Your task to perform on an android device: Check the weather Image 0: 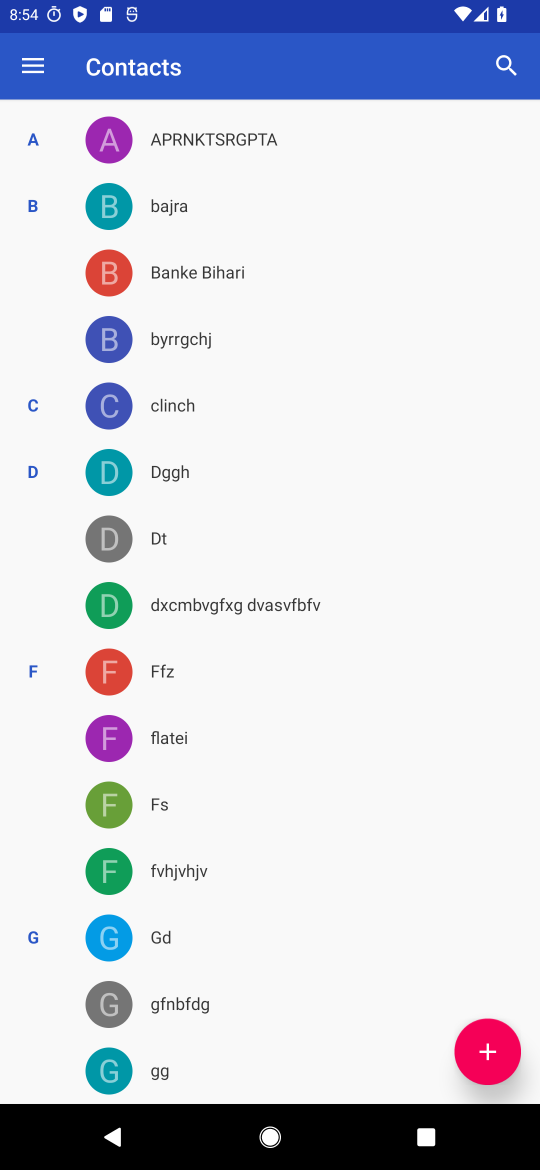
Step 0: press home button
Your task to perform on an android device: Check the weather Image 1: 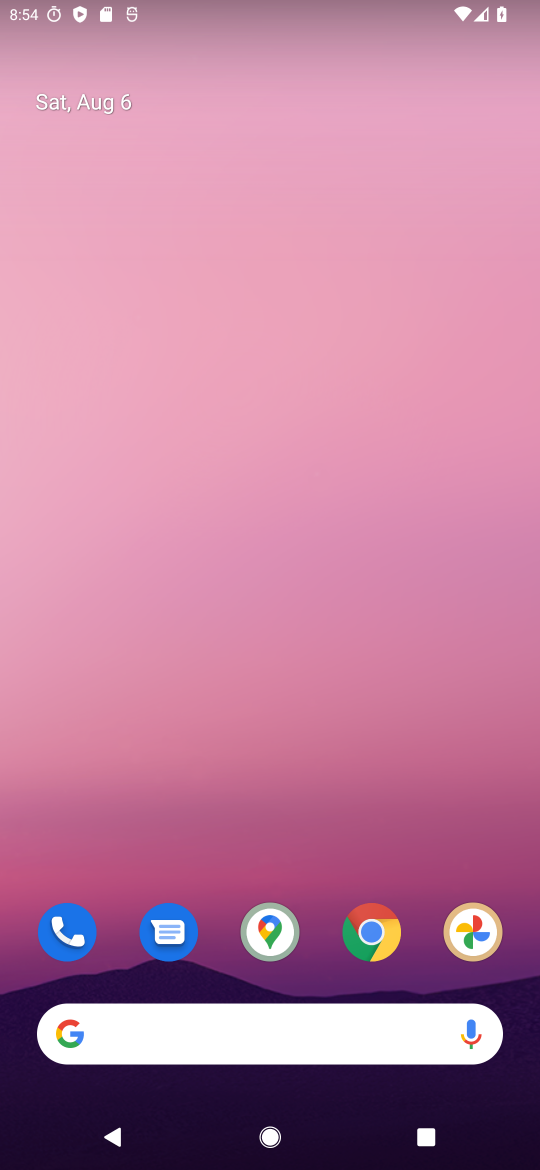
Step 1: click (217, 1031)
Your task to perform on an android device: Check the weather Image 2: 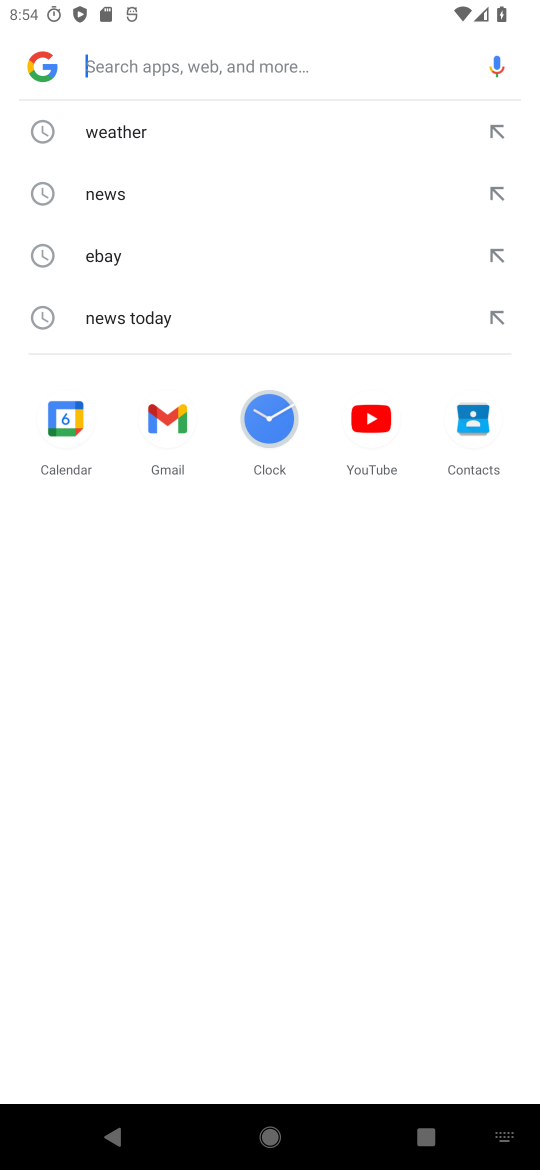
Step 2: click (124, 135)
Your task to perform on an android device: Check the weather Image 3: 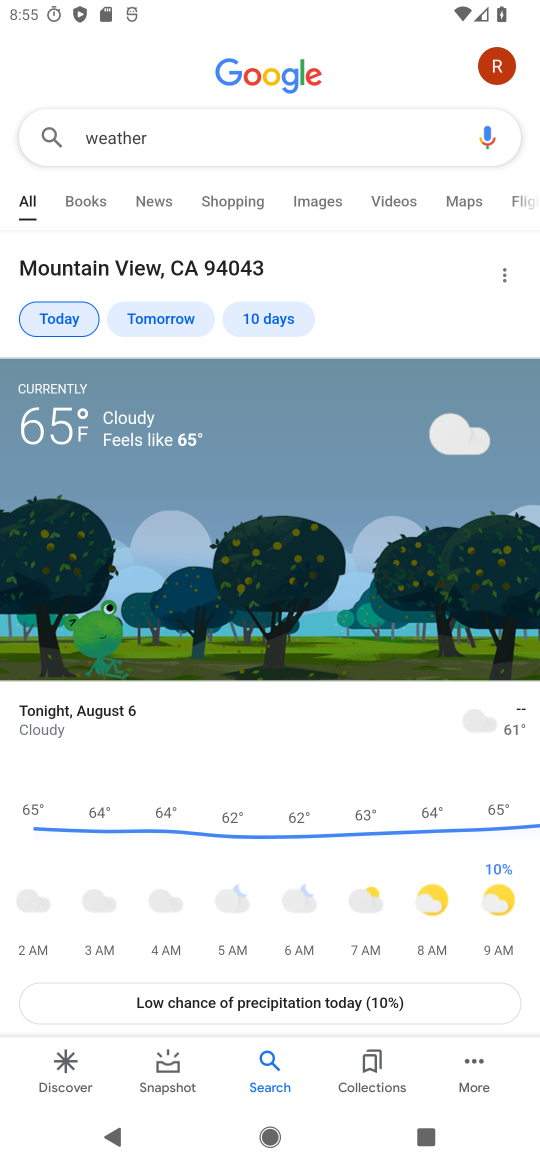
Step 3: task complete